Your task to perform on an android device: delete location history Image 0: 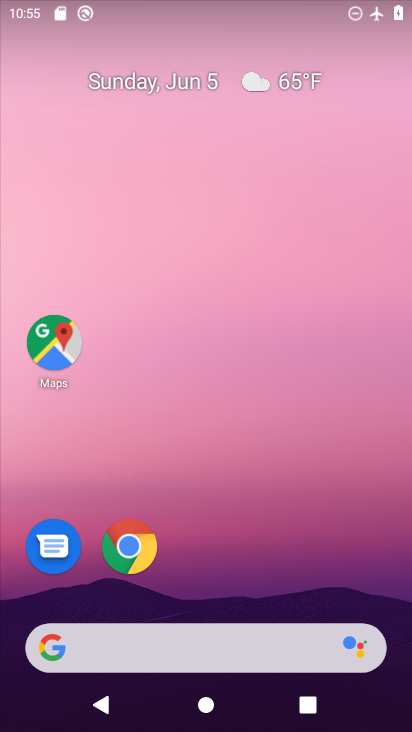
Step 0: drag from (213, 565) to (226, 531)
Your task to perform on an android device: delete location history Image 1: 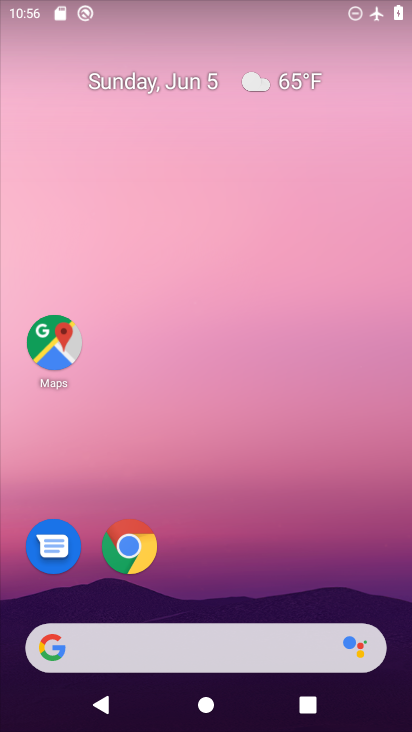
Step 1: drag from (213, 548) to (286, 48)
Your task to perform on an android device: delete location history Image 2: 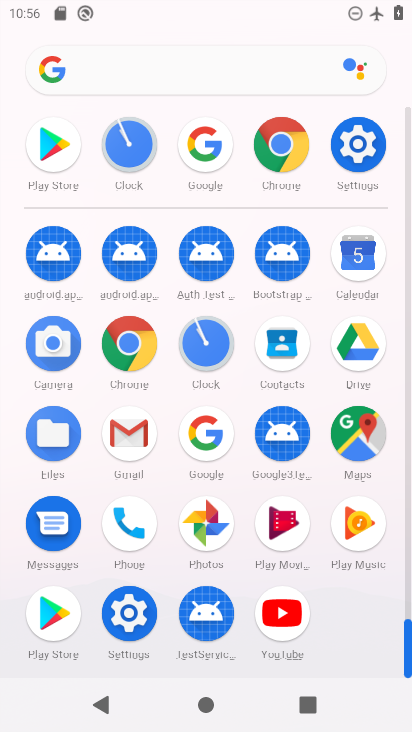
Step 2: click (196, 354)
Your task to perform on an android device: delete location history Image 3: 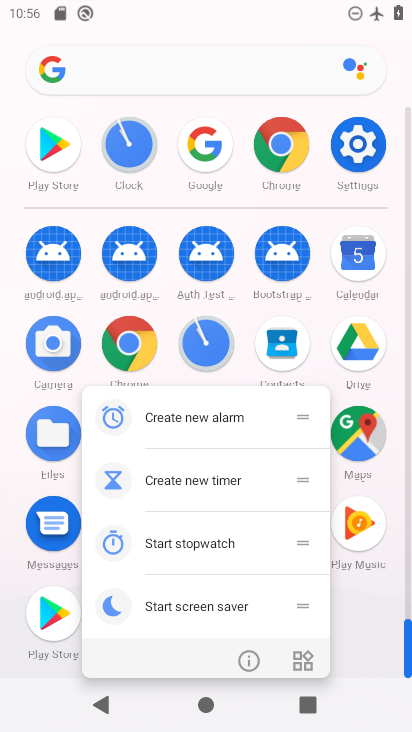
Step 3: click (357, 137)
Your task to perform on an android device: delete location history Image 4: 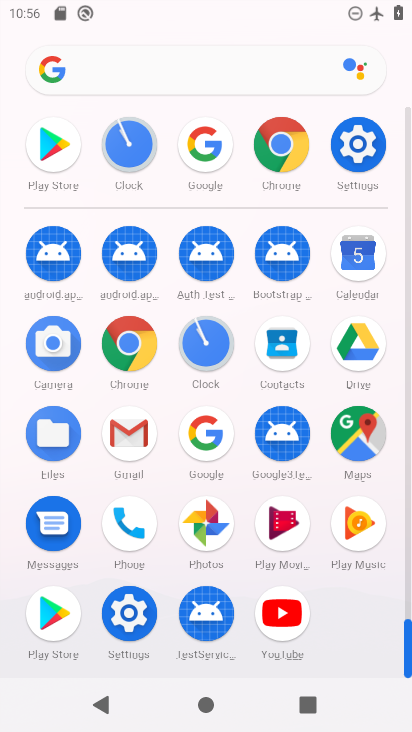
Step 4: click (376, 150)
Your task to perform on an android device: delete location history Image 5: 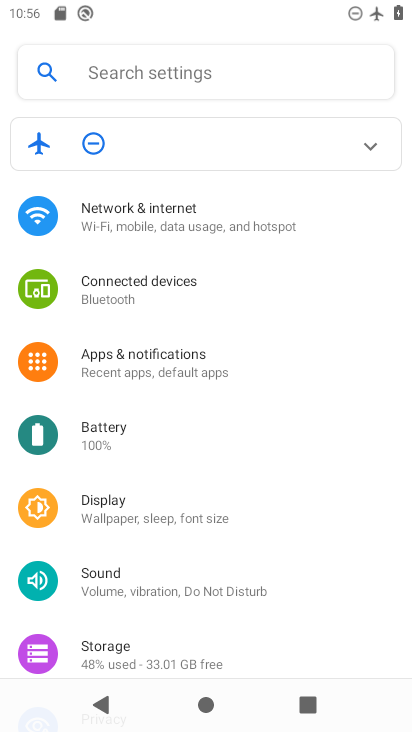
Step 5: drag from (167, 555) to (333, 67)
Your task to perform on an android device: delete location history Image 6: 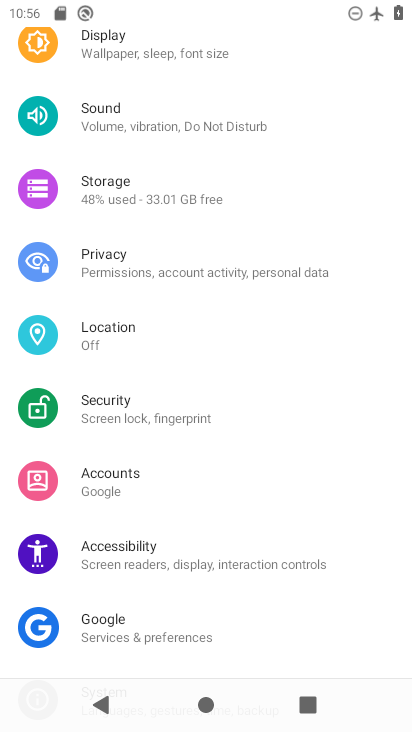
Step 6: click (155, 331)
Your task to perform on an android device: delete location history Image 7: 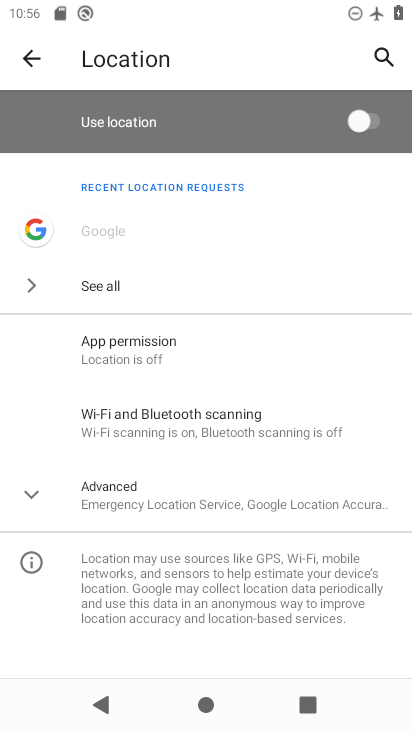
Step 7: click (146, 491)
Your task to perform on an android device: delete location history Image 8: 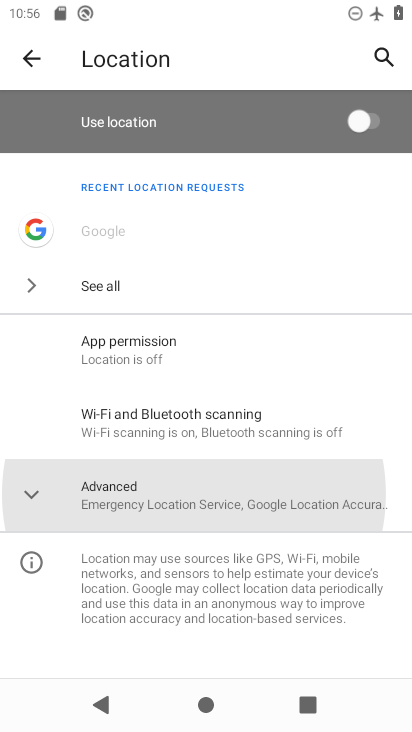
Step 8: drag from (146, 491) to (213, 312)
Your task to perform on an android device: delete location history Image 9: 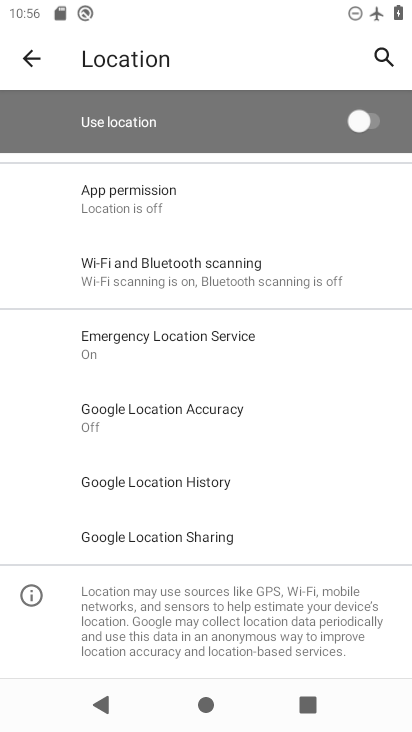
Step 9: click (161, 479)
Your task to perform on an android device: delete location history Image 10: 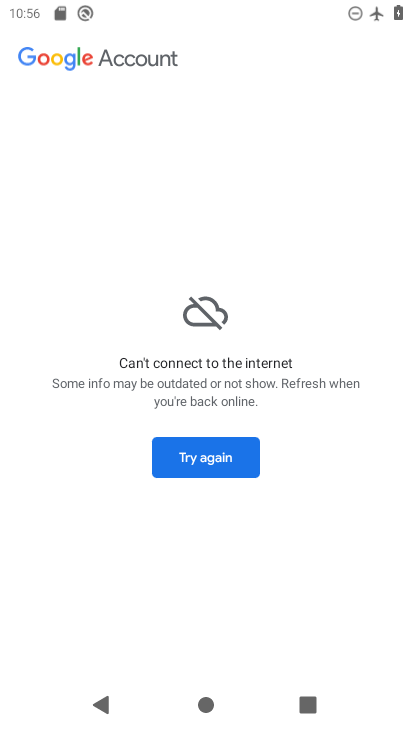
Step 10: click (224, 462)
Your task to perform on an android device: delete location history Image 11: 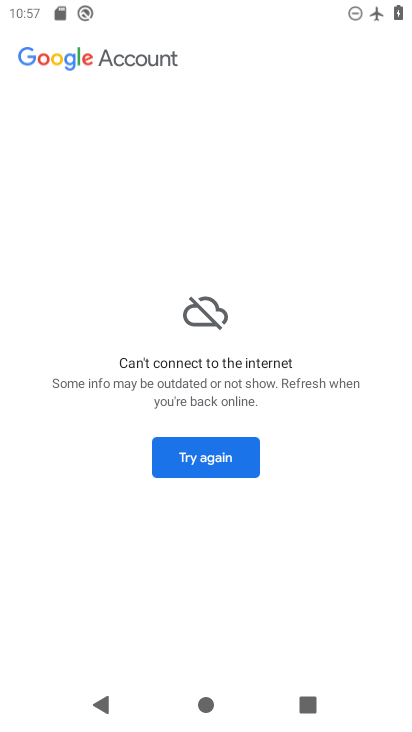
Step 11: click (216, 457)
Your task to perform on an android device: delete location history Image 12: 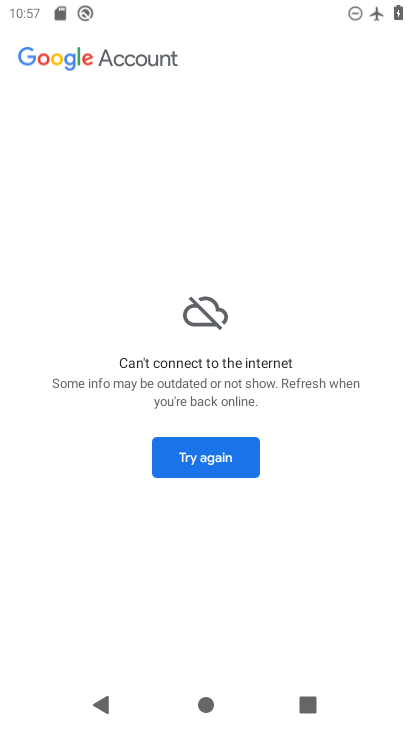
Step 12: task complete